Your task to perform on an android device: change the upload size in google photos Image 0: 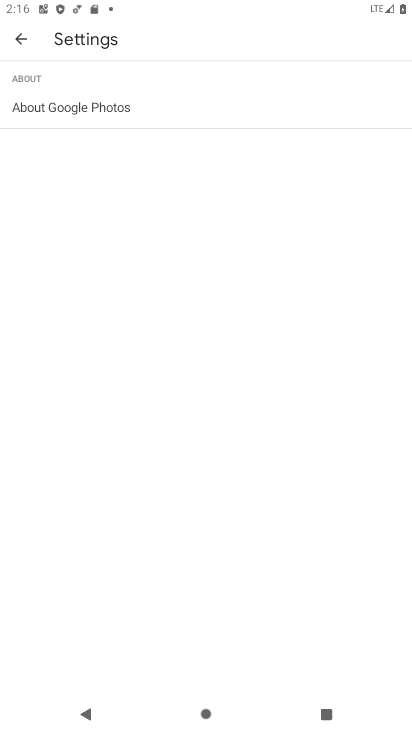
Step 0: press home button
Your task to perform on an android device: change the upload size in google photos Image 1: 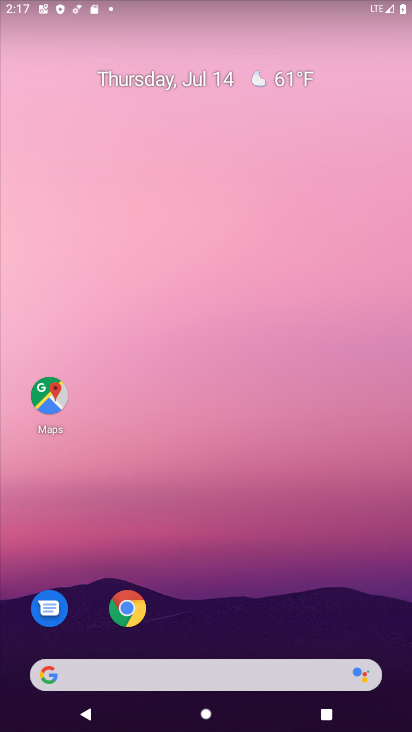
Step 1: drag from (219, 659) to (224, 266)
Your task to perform on an android device: change the upload size in google photos Image 2: 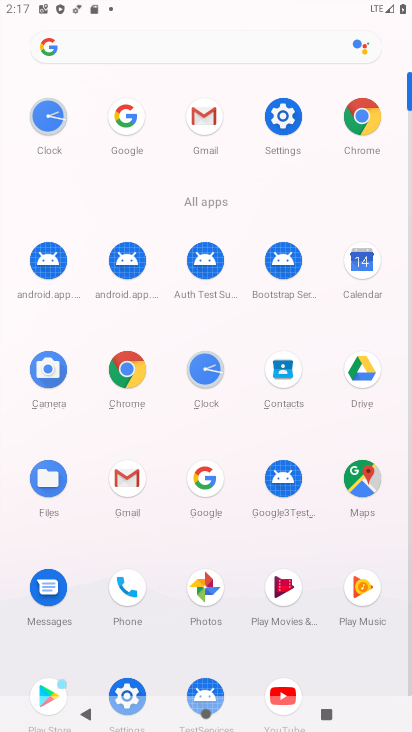
Step 2: click (201, 594)
Your task to perform on an android device: change the upload size in google photos Image 3: 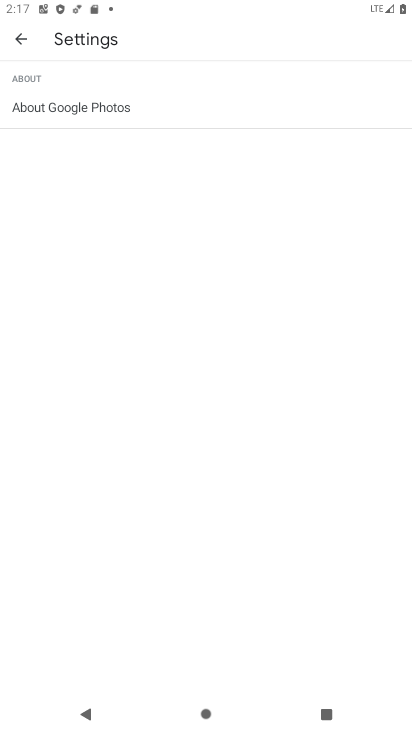
Step 3: click (14, 37)
Your task to perform on an android device: change the upload size in google photos Image 4: 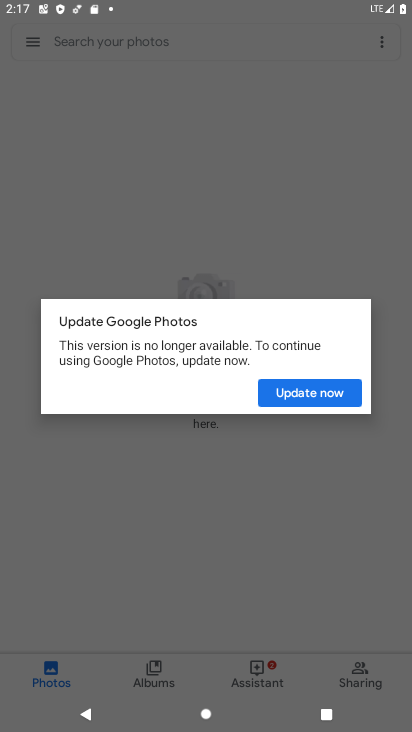
Step 4: click (286, 394)
Your task to perform on an android device: change the upload size in google photos Image 5: 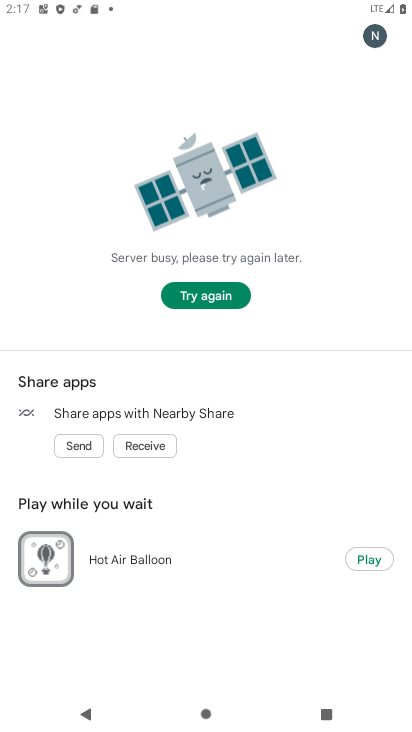
Step 5: click (190, 294)
Your task to perform on an android device: change the upload size in google photos Image 6: 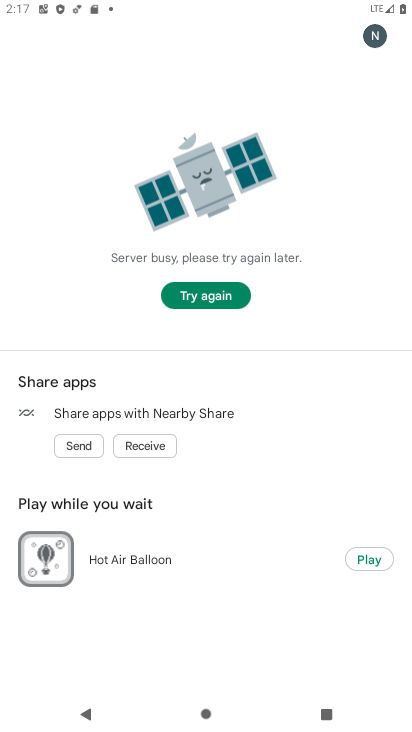
Step 6: task complete